Your task to perform on an android device: What's the weather going to be tomorrow? Image 0: 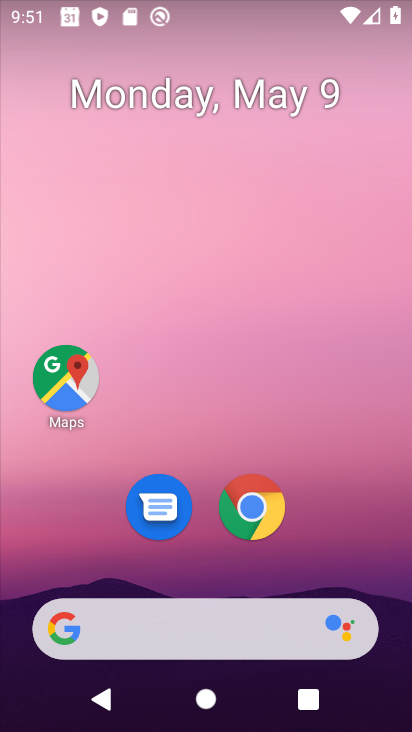
Step 0: drag from (335, 418) to (316, 113)
Your task to perform on an android device: What's the weather going to be tomorrow? Image 1: 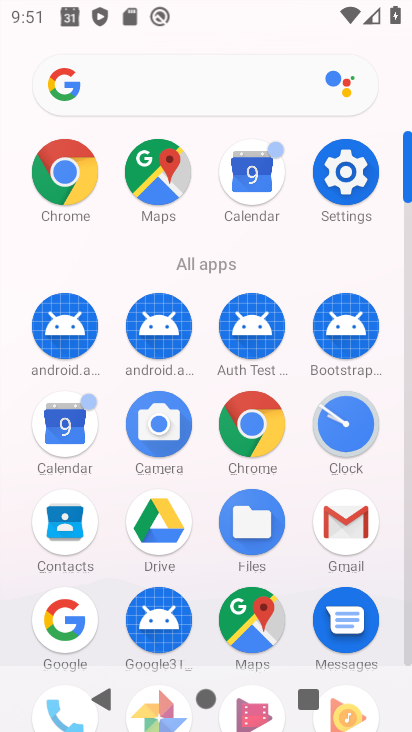
Step 1: drag from (175, 273) to (191, 731)
Your task to perform on an android device: What's the weather going to be tomorrow? Image 2: 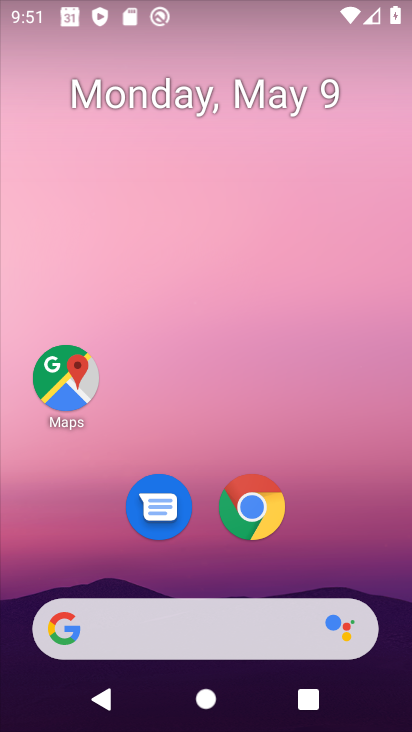
Step 2: drag from (37, 209) to (409, 172)
Your task to perform on an android device: What's the weather going to be tomorrow? Image 3: 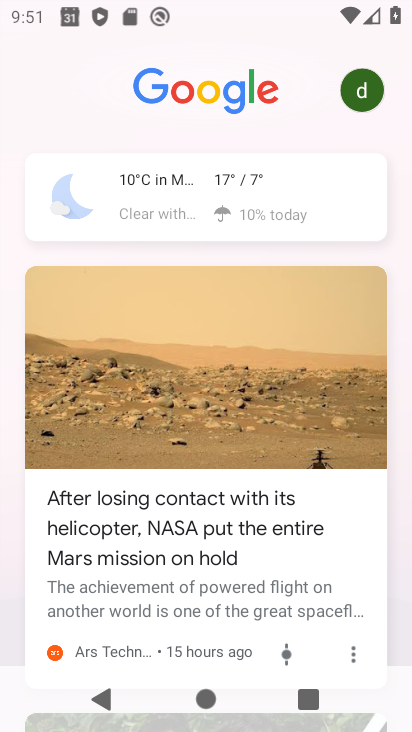
Step 3: click (259, 182)
Your task to perform on an android device: What's the weather going to be tomorrow? Image 4: 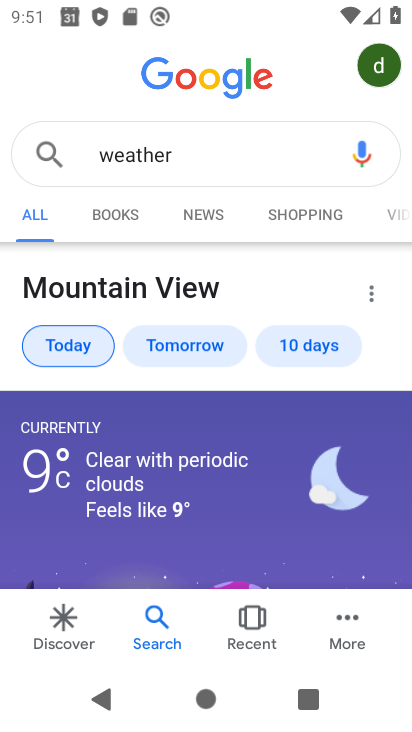
Step 4: click (179, 341)
Your task to perform on an android device: What's the weather going to be tomorrow? Image 5: 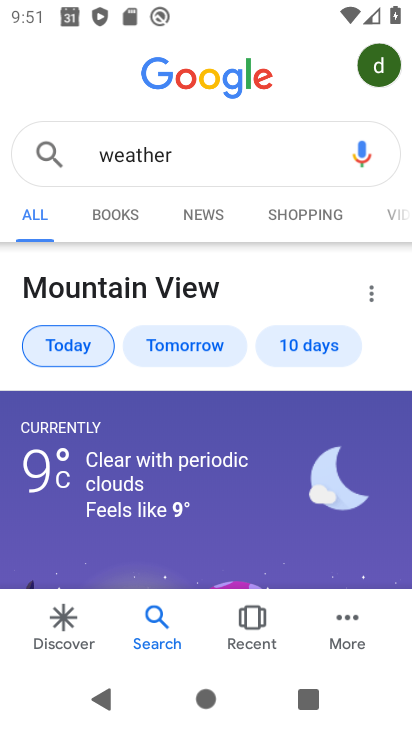
Step 5: click (179, 341)
Your task to perform on an android device: What's the weather going to be tomorrow? Image 6: 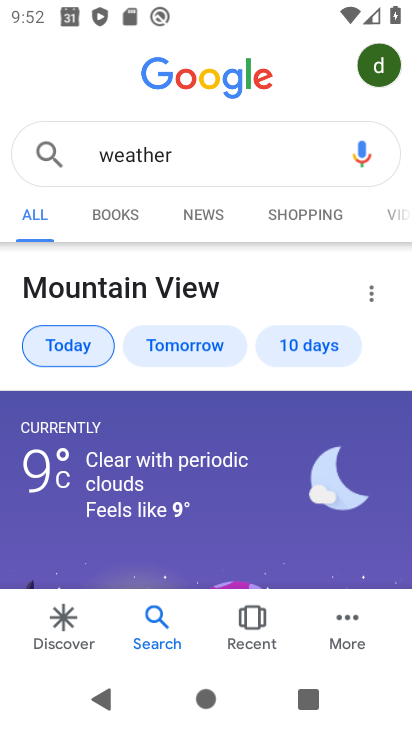
Step 6: click (179, 341)
Your task to perform on an android device: What's the weather going to be tomorrow? Image 7: 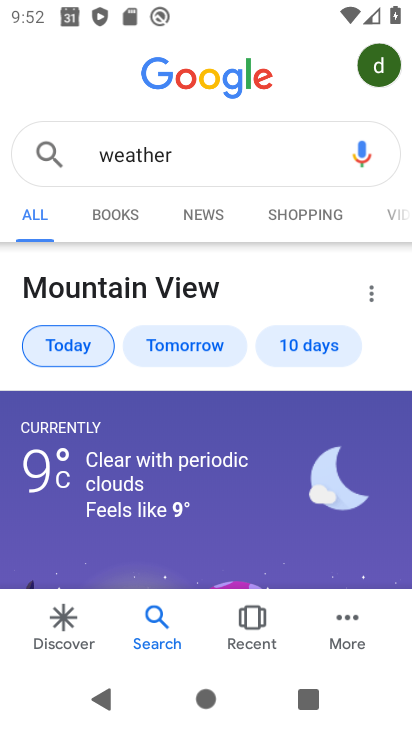
Step 7: click (226, 158)
Your task to perform on an android device: What's the weather going to be tomorrow? Image 8: 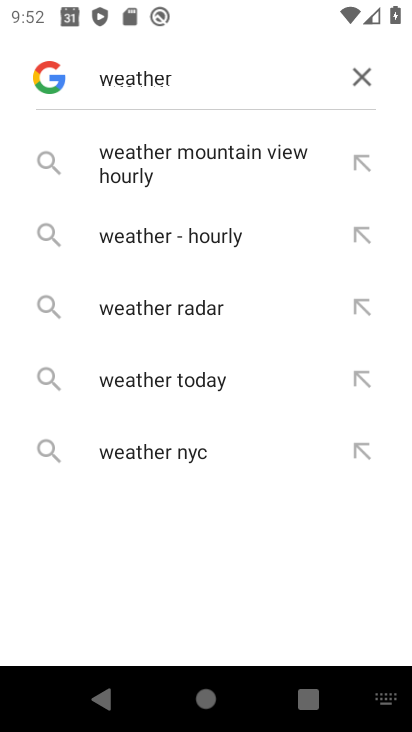
Step 8: type " tomorrow"
Your task to perform on an android device: What's the weather going to be tomorrow? Image 9: 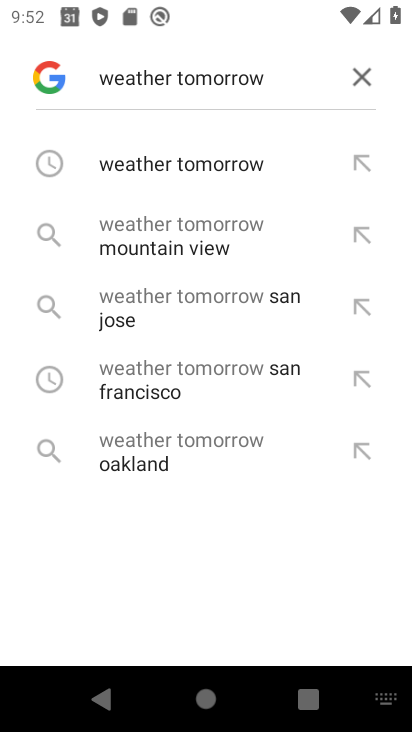
Step 9: click (204, 160)
Your task to perform on an android device: What's the weather going to be tomorrow? Image 10: 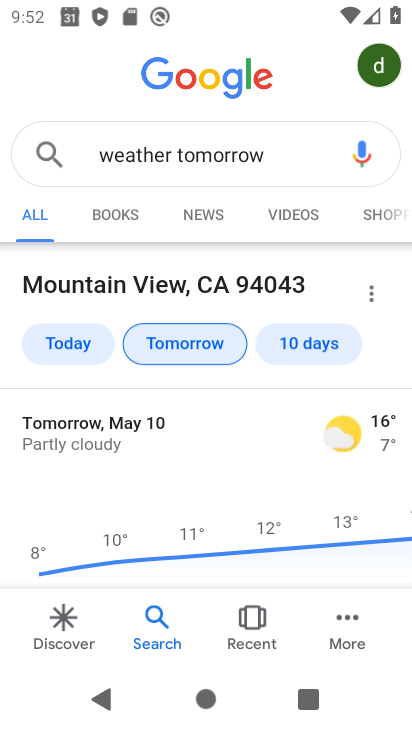
Step 10: task complete